Your task to perform on an android device: Go to location settings Image 0: 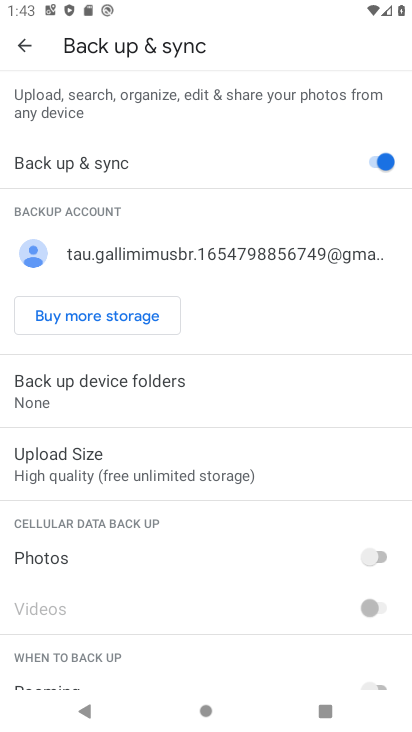
Step 0: press home button
Your task to perform on an android device: Go to location settings Image 1: 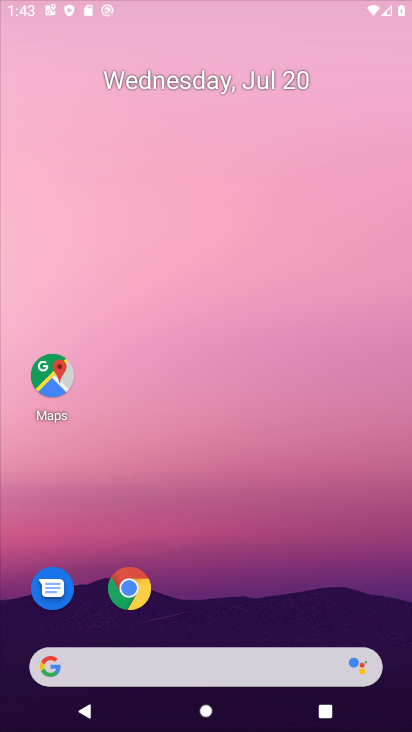
Step 1: drag from (388, 685) to (231, 35)
Your task to perform on an android device: Go to location settings Image 2: 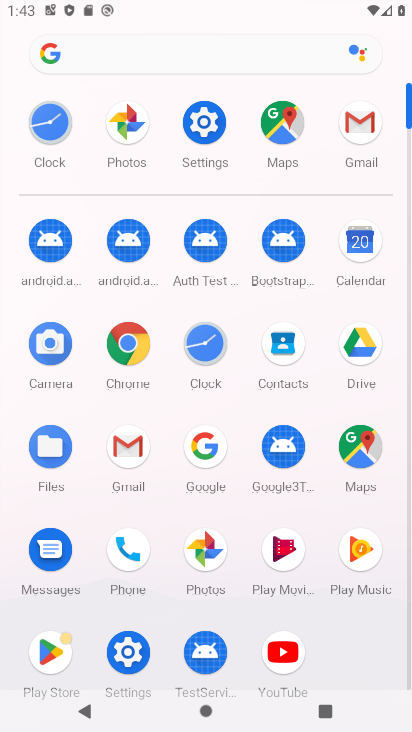
Step 2: click (126, 638)
Your task to perform on an android device: Go to location settings Image 3: 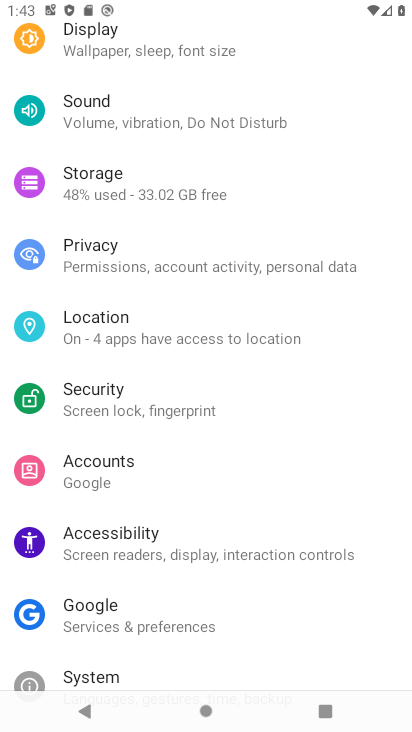
Step 3: click (148, 323)
Your task to perform on an android device: Go to location settings Image 4: 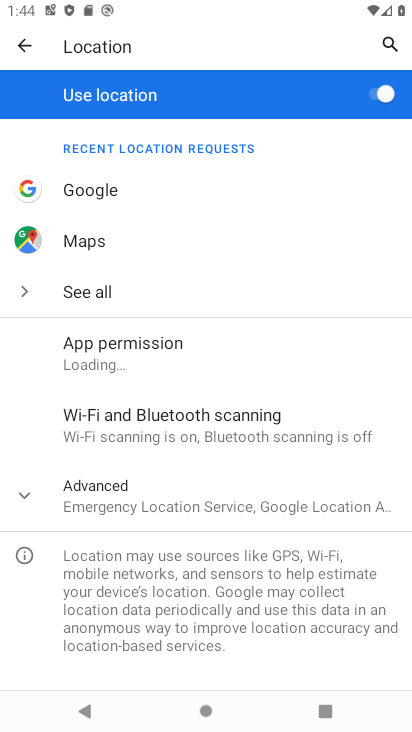
Step 4: task complete